Your task to perform on an android device: Open settings on Google Maps Image 0: 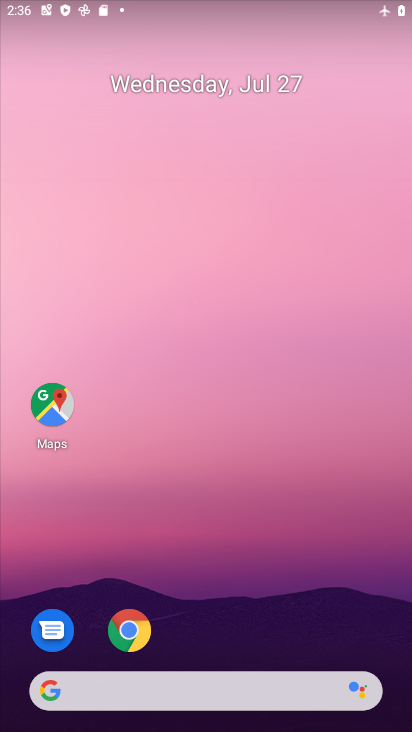
Step 0: drag from (384, 714) to (330, 166)
Your task to perform on an android device: Open settings on Google Maps Image 1: 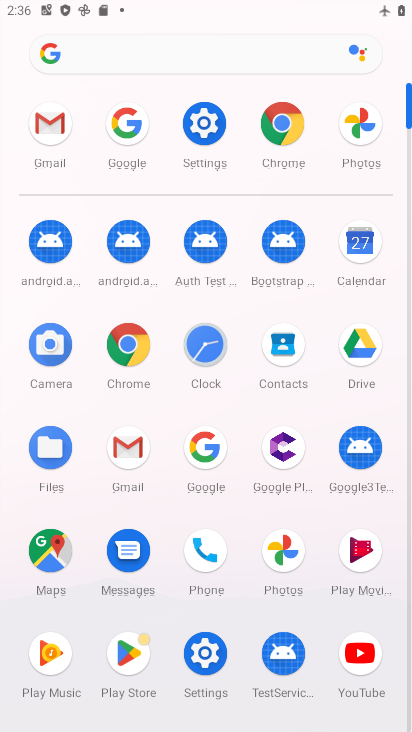
Step 1: click (53, 544)
Your task to perform on an android device: Open settings on Google Maps Image 2: 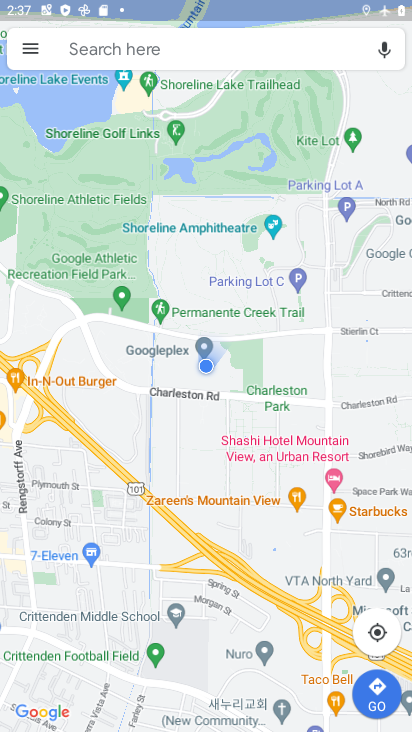
Step 2: task complete